Your task to perform on an android device: clear all cookies in the chrome app Image 0: 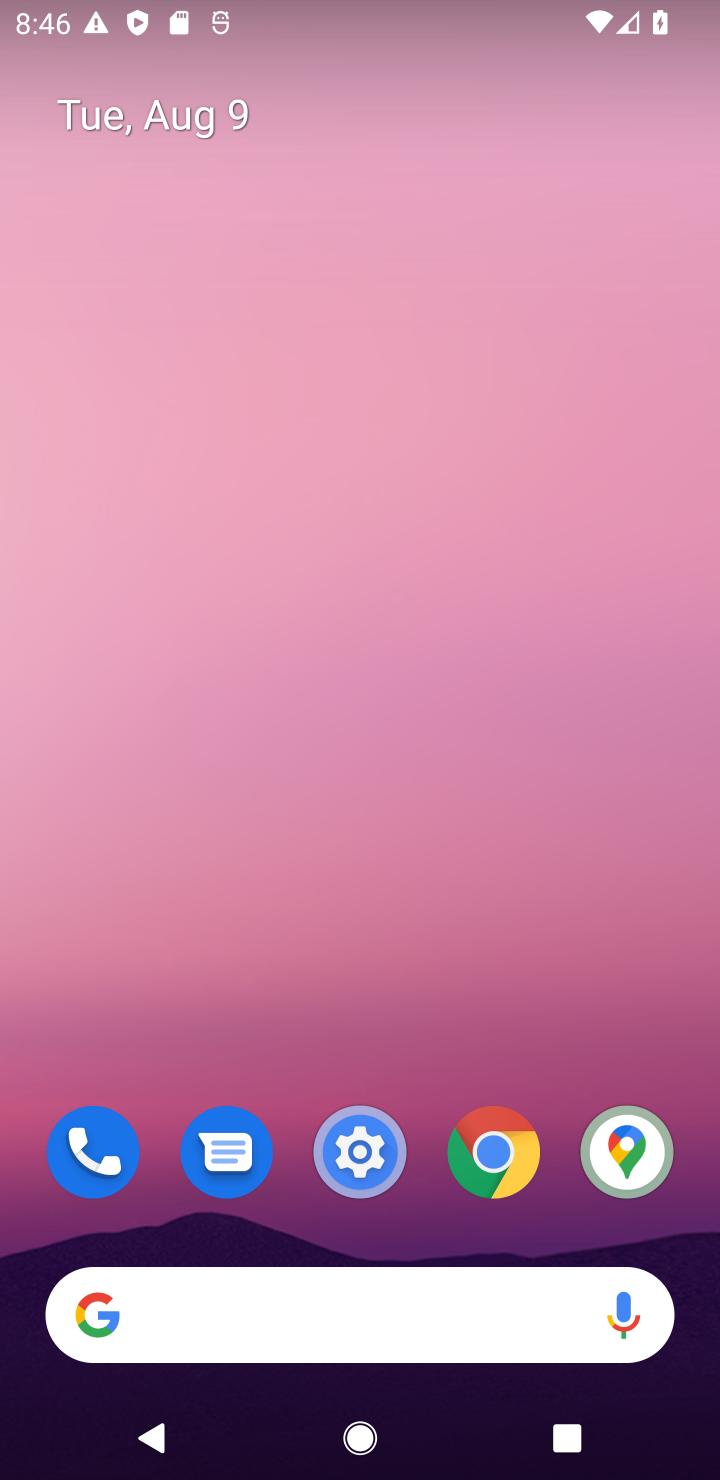
Step 0: click (502, 1152)
Your task to perform on an android device: clear all cookies in the chrome app Image 1: 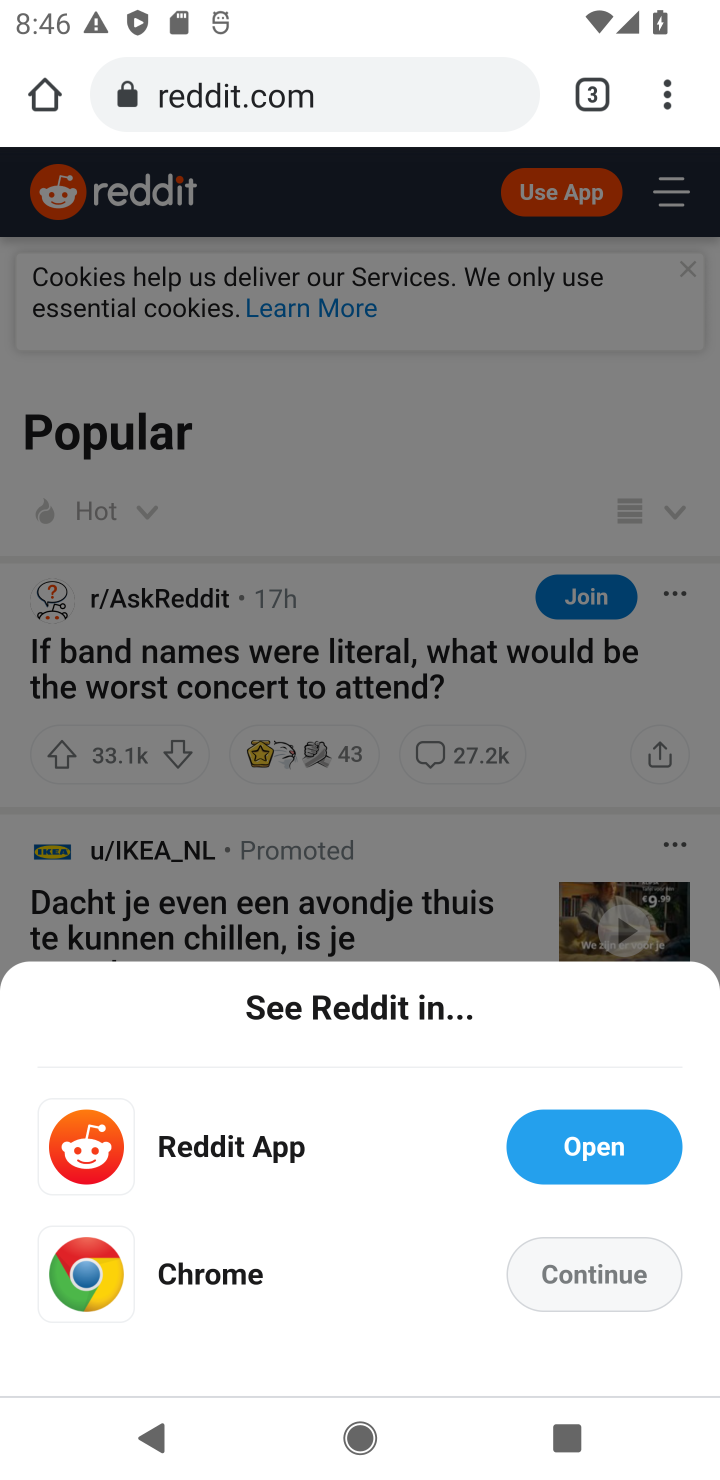
Step 1: click (679, 82)
Your task to perform on an android device: clear all cookies in the chrome app Image 2: 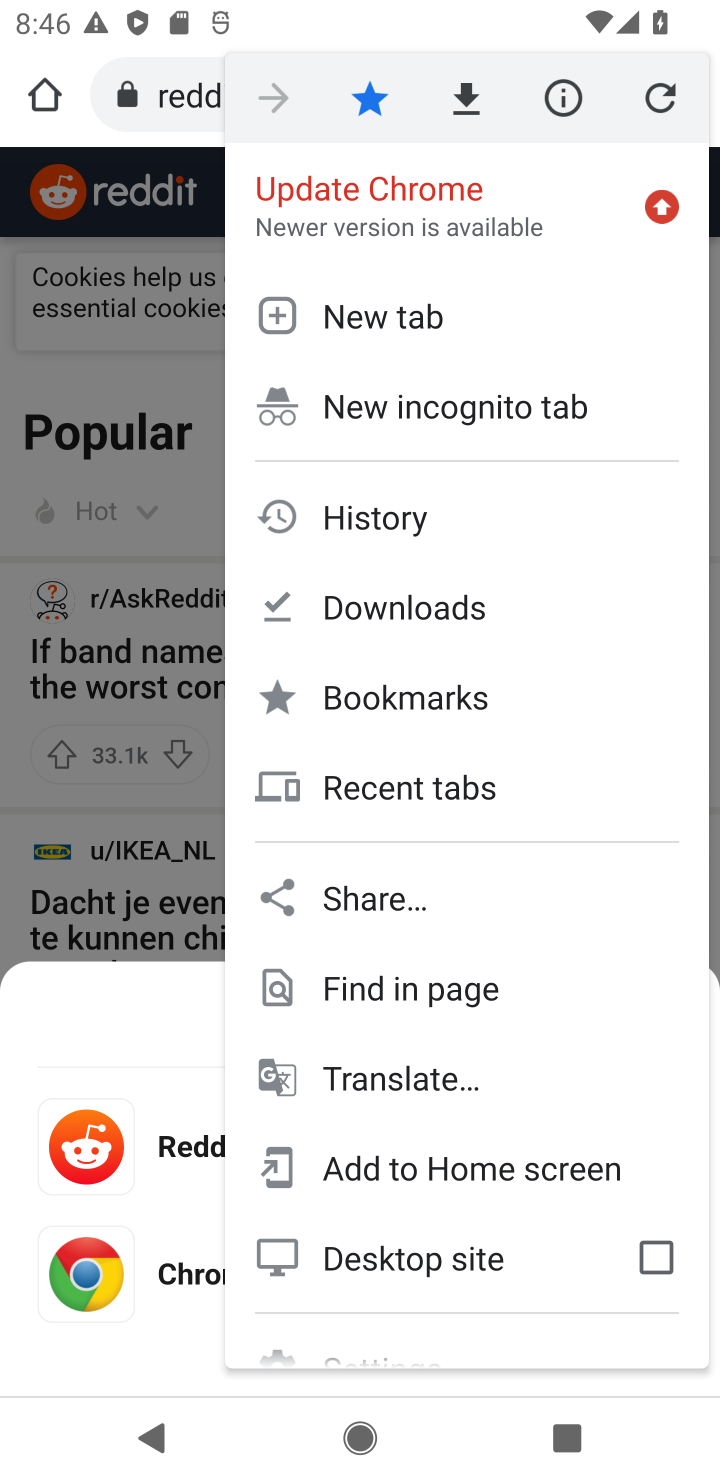
Step 2: click (423, 525)
Your task to perform on an android device: clear all cookies in the chrome app Image 3: 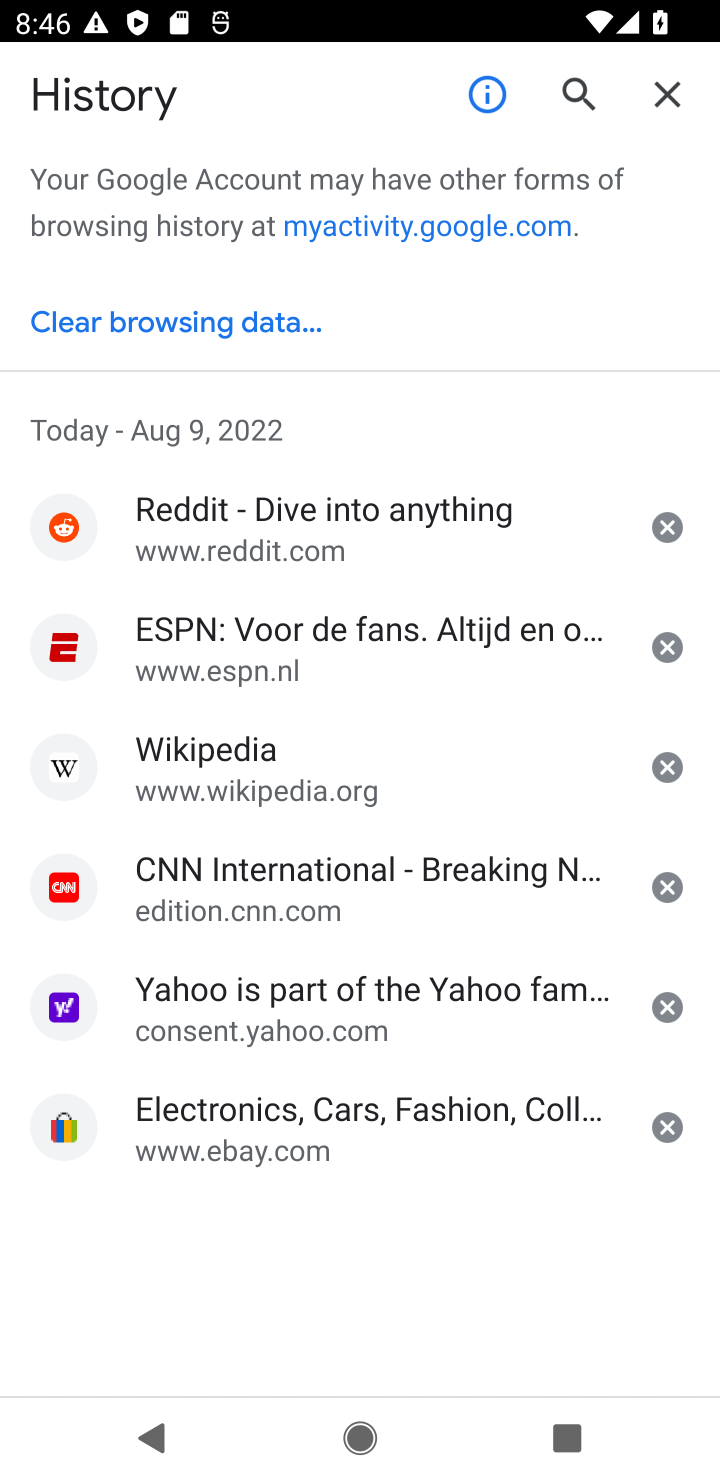
Step 3: click (202, 321)
Your task to perform on an android device: clear all cookies in the chrome app Image 4: 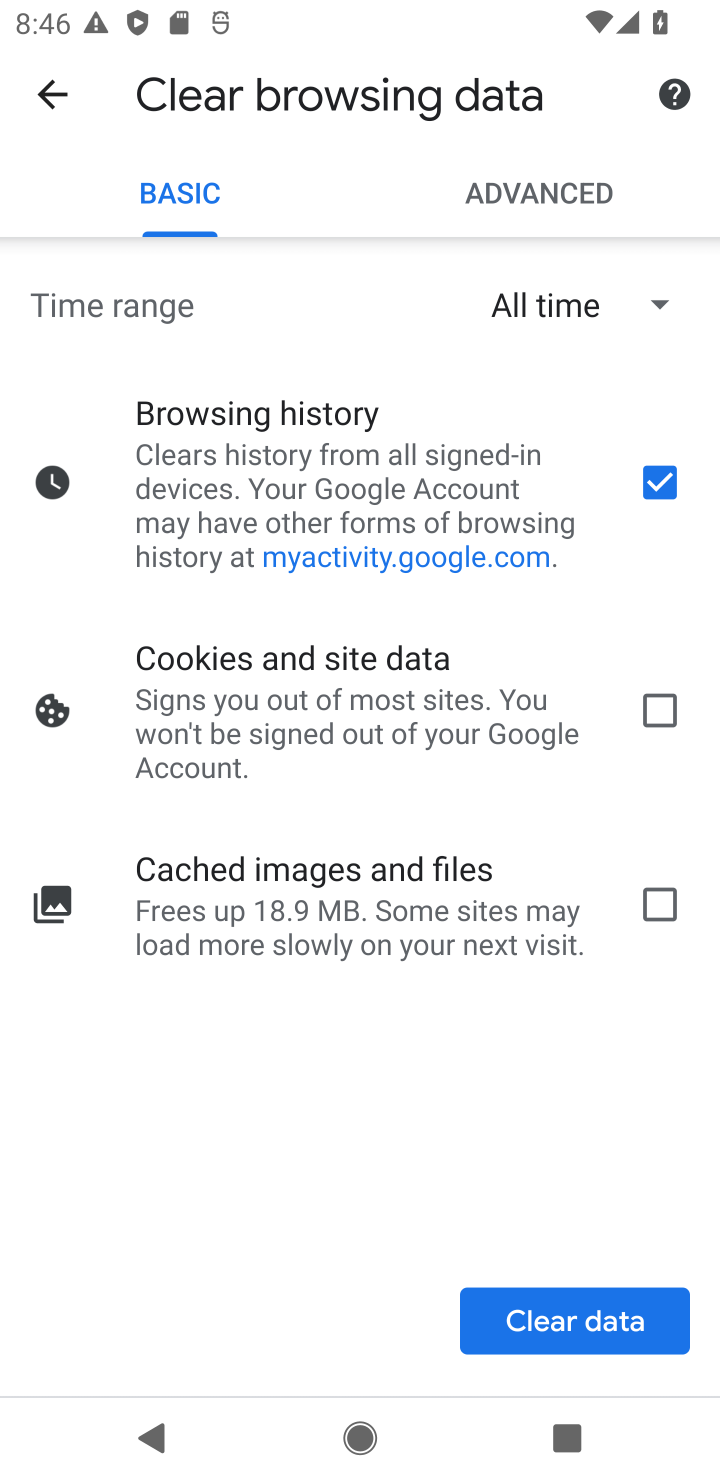
Step 4: click (646, 482)
Your task to perform on an android device: clear all cookies in the chrome app Image 5: 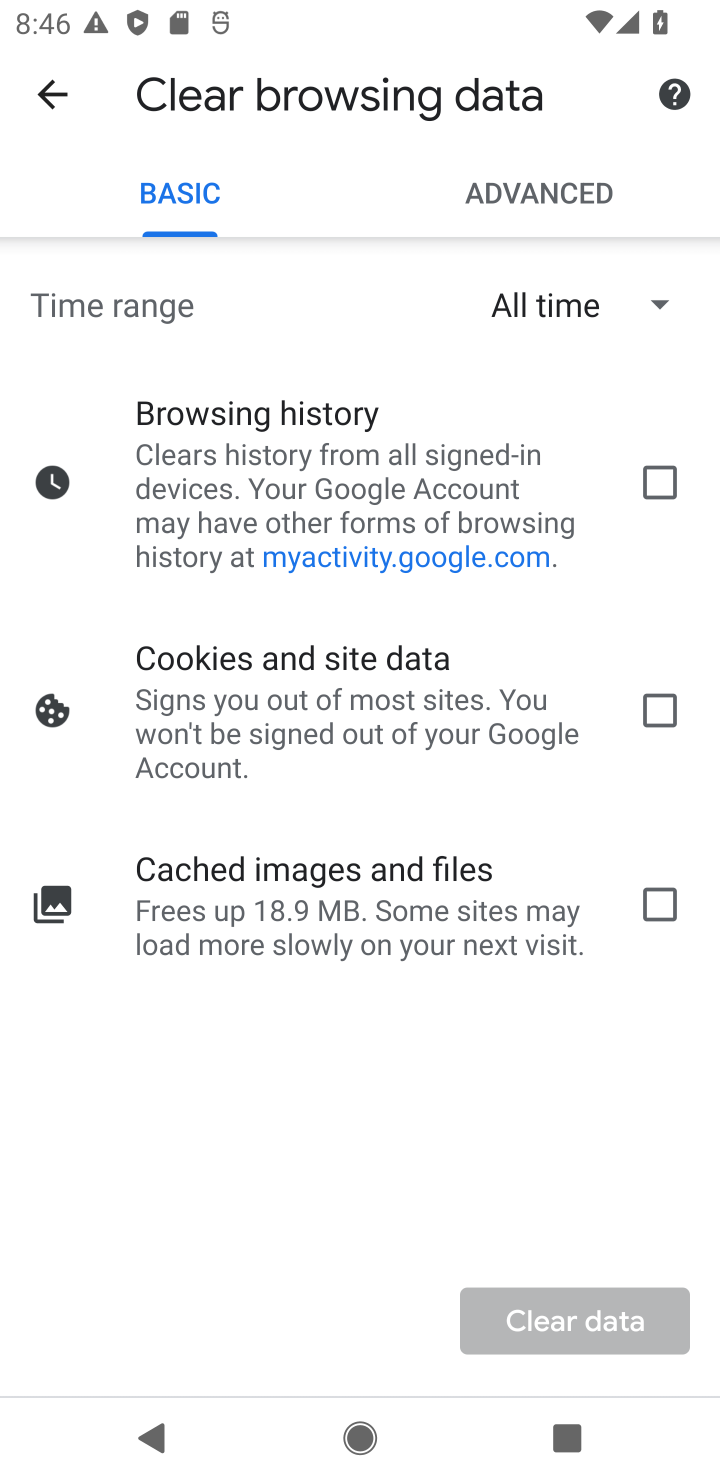
Step 5: click (659, 712)
Your task to perform on an android device: clear all cookies in the chrome app Image 6: 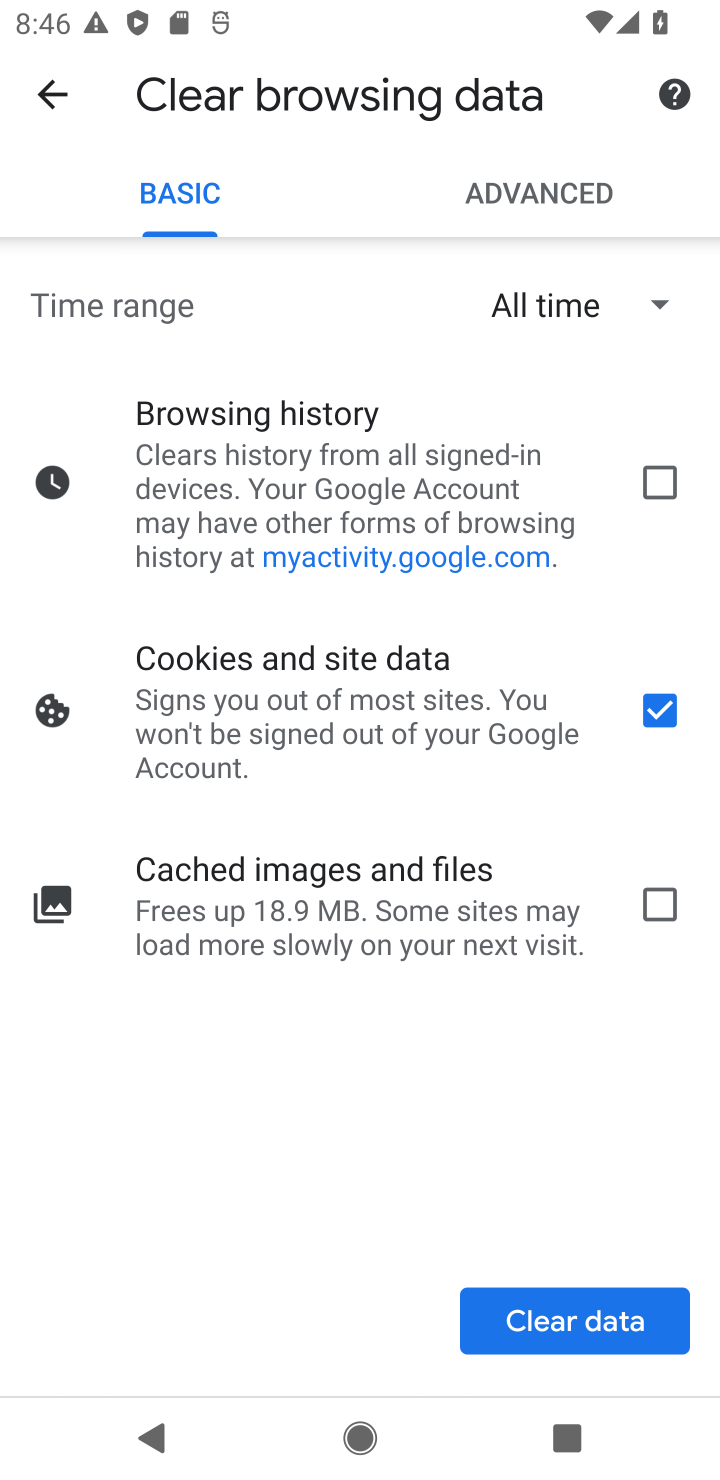
Step 6: click (598, 1347)
Your task to perform on an android device: clear all cookies in the chrome app Image 7: 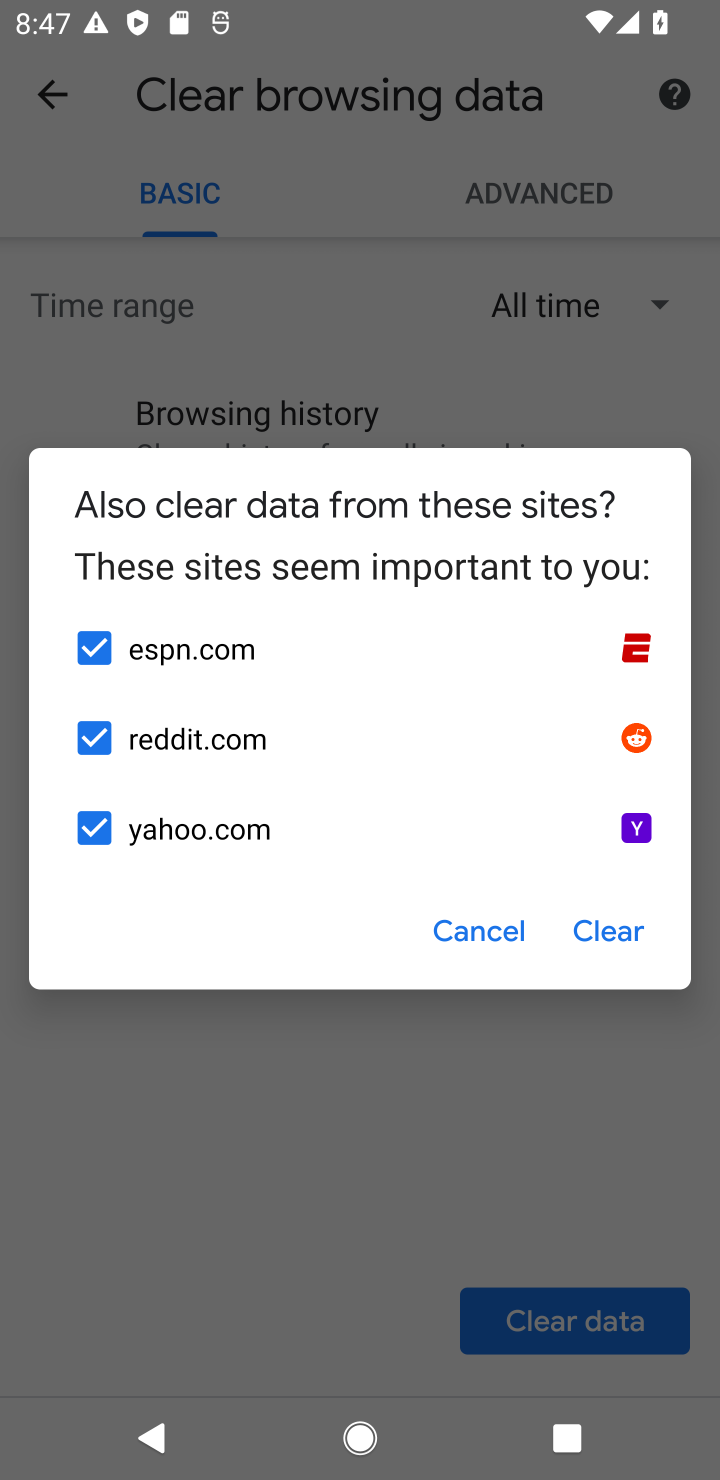
Step 7: click (609, 951)
Your task to perform on an android device: clear all cookies in the chrome app Image 8: 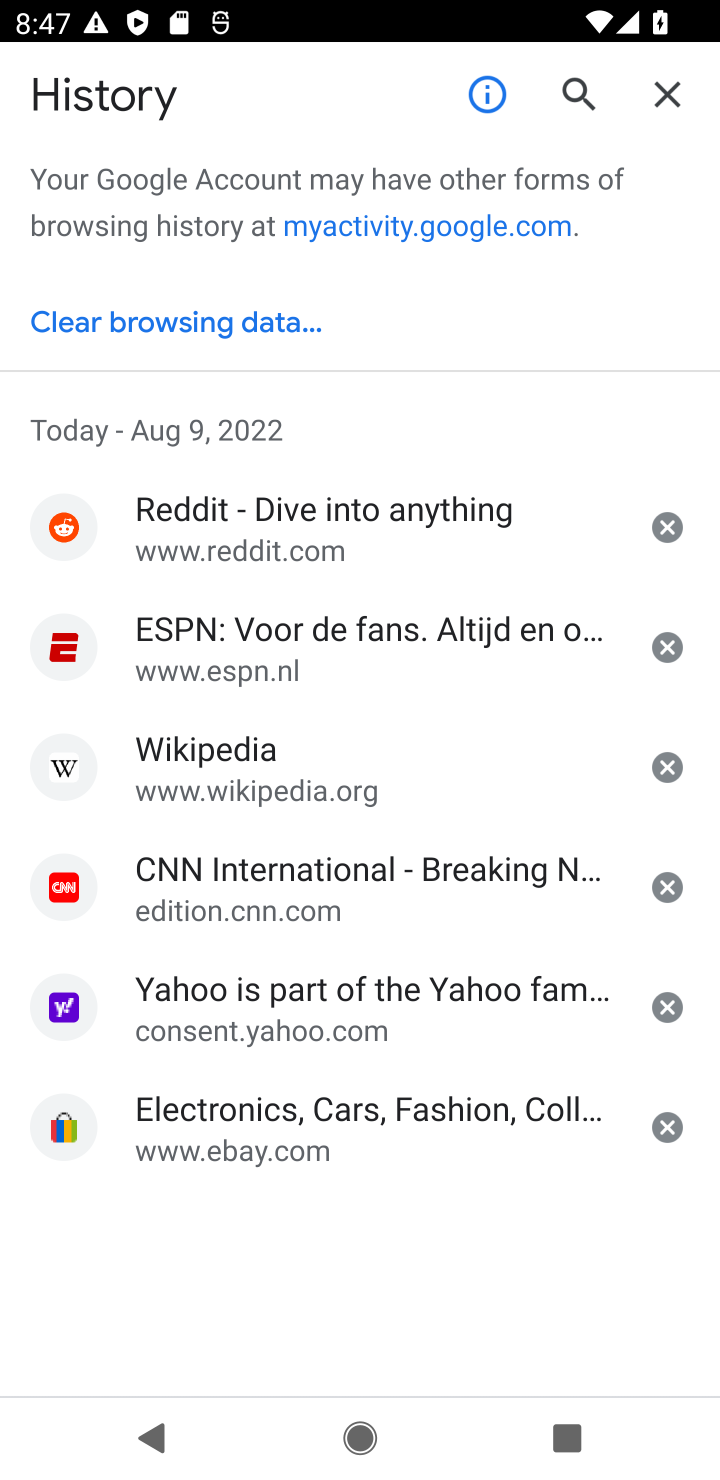
Step 8: task complete